Your task to perform on an android device: View the shopping cart on ebay. Search for logitech g933 on ebay, select the first entry, and add it to the cart. Image 0: 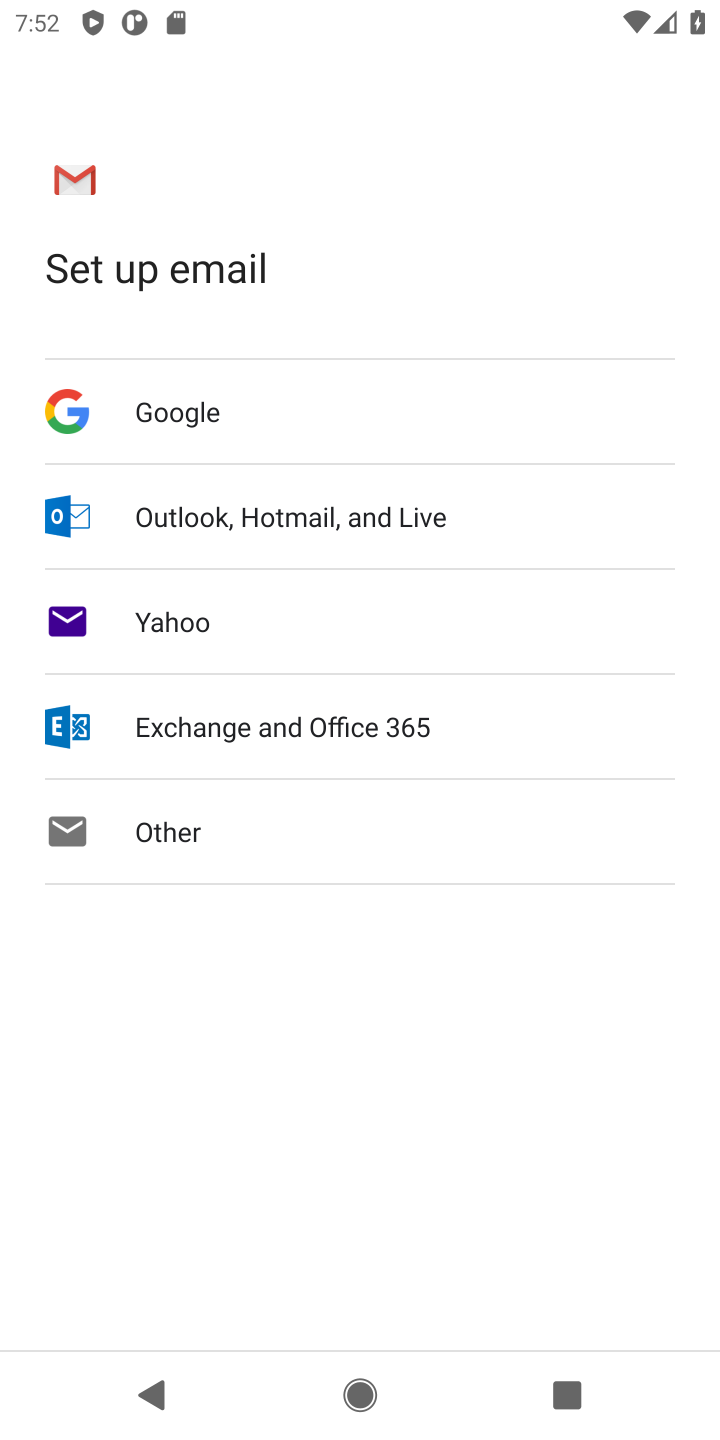
Step 0: press home button
Your task to perform on an android device: View the shopping cart on ebay. Search for logitech g933 on ebay, select the first entry, and add it to the cart. Image 1: 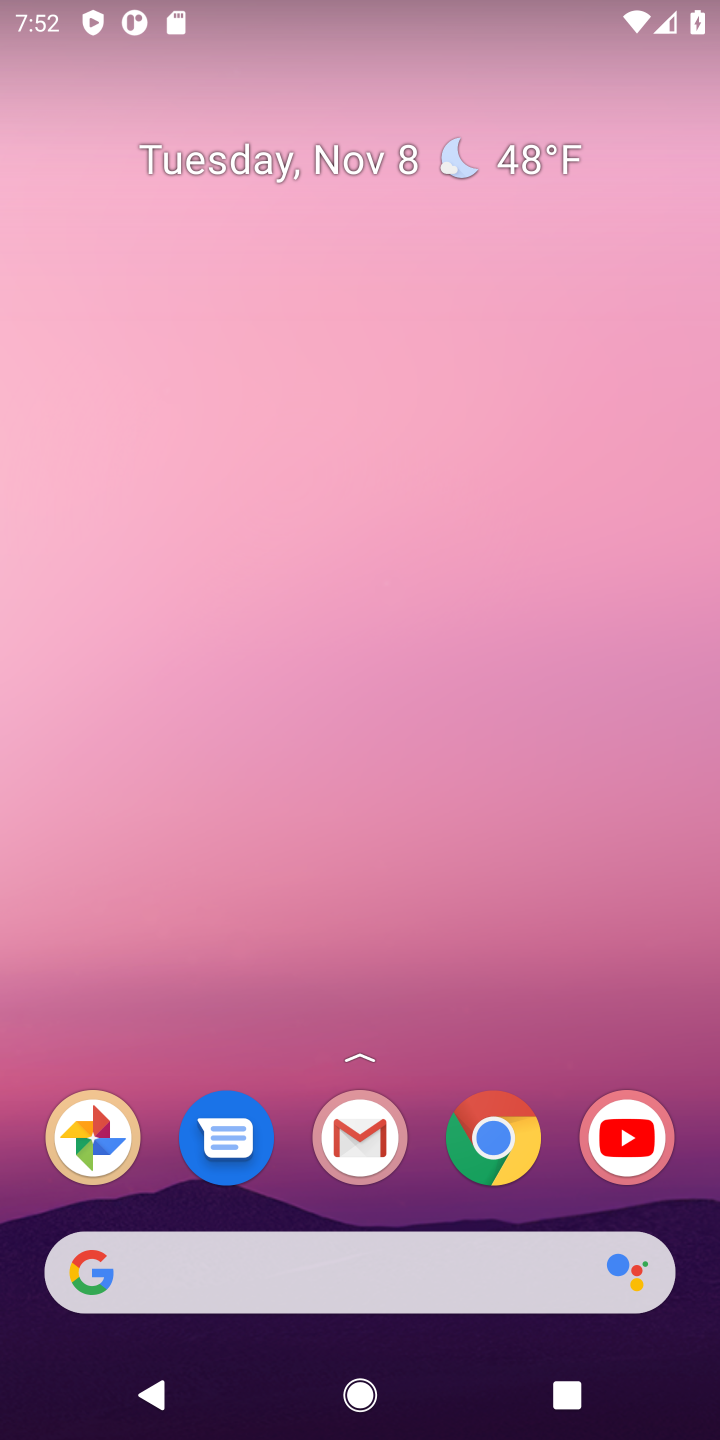
Step 1: click (503, 1151)
Your task to perform on an android device: View the shopping cart on ebay. Search for logitech g933 on ebay, select the first entry, and add it to the cart. Image 2: 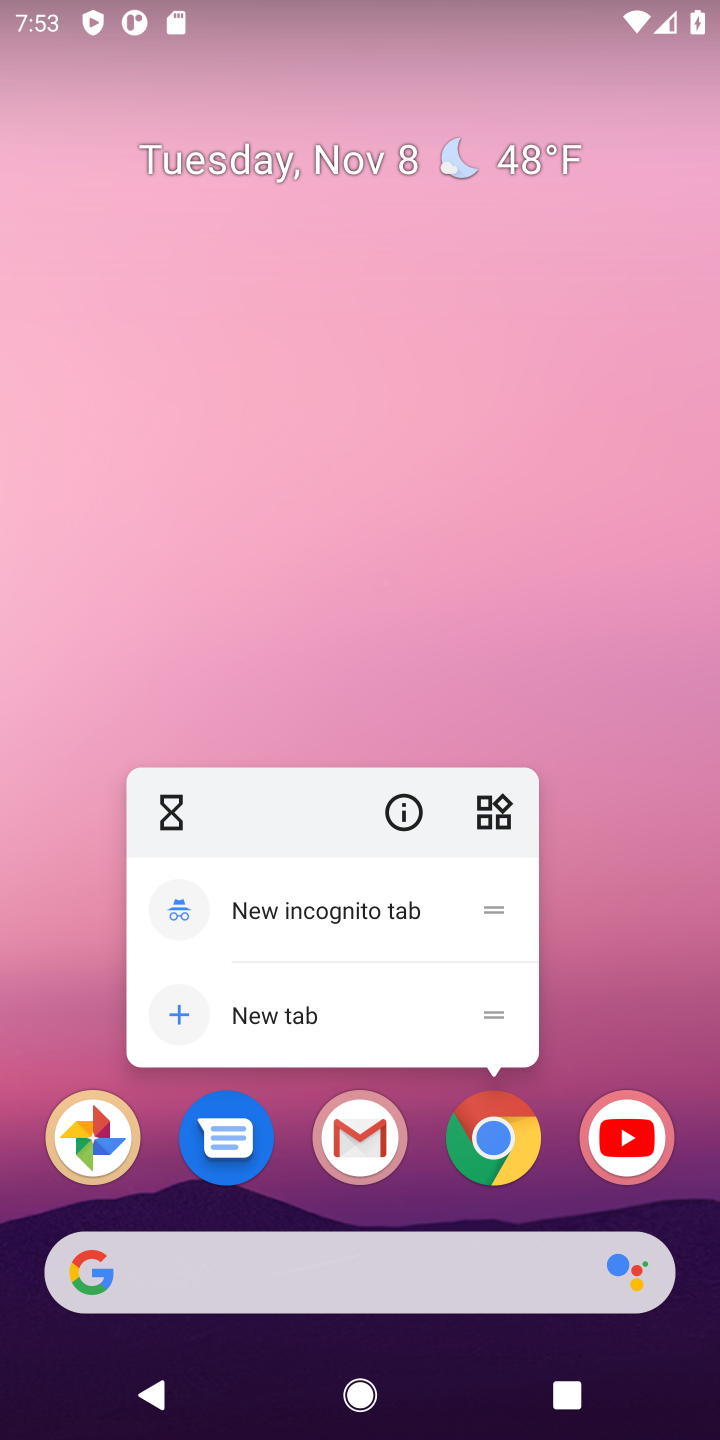
Step 2: click (503, 1134)
Your task to perform on an android device: View the shopping cart on ebay. Search for logitech g933 on ebay, select the first entry, and add it to the cart. Image 3: 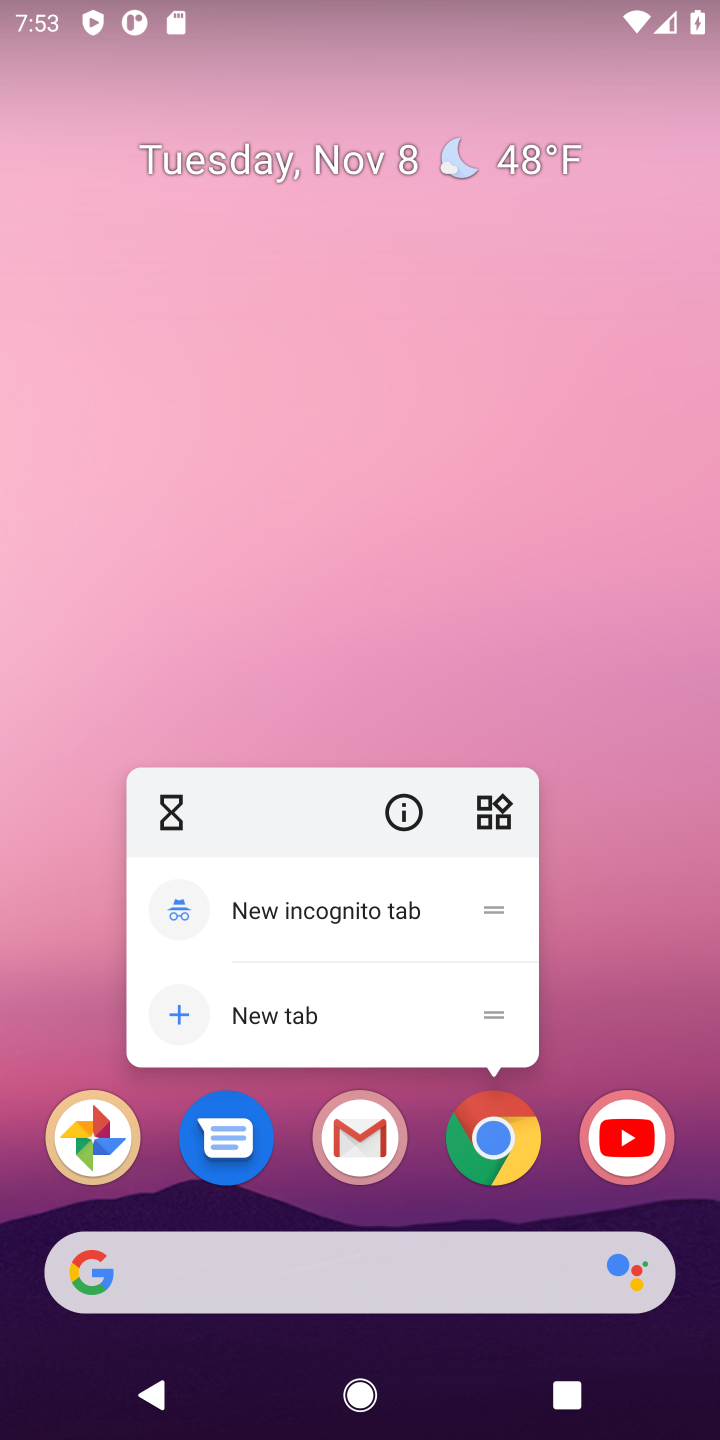
Step 3: click (503, 1142)
Your task to perform on an android device: View the shopping cart on ebay. Search for logitech g933 on ebay, select the first entry, and add it to the cart. Image 4: 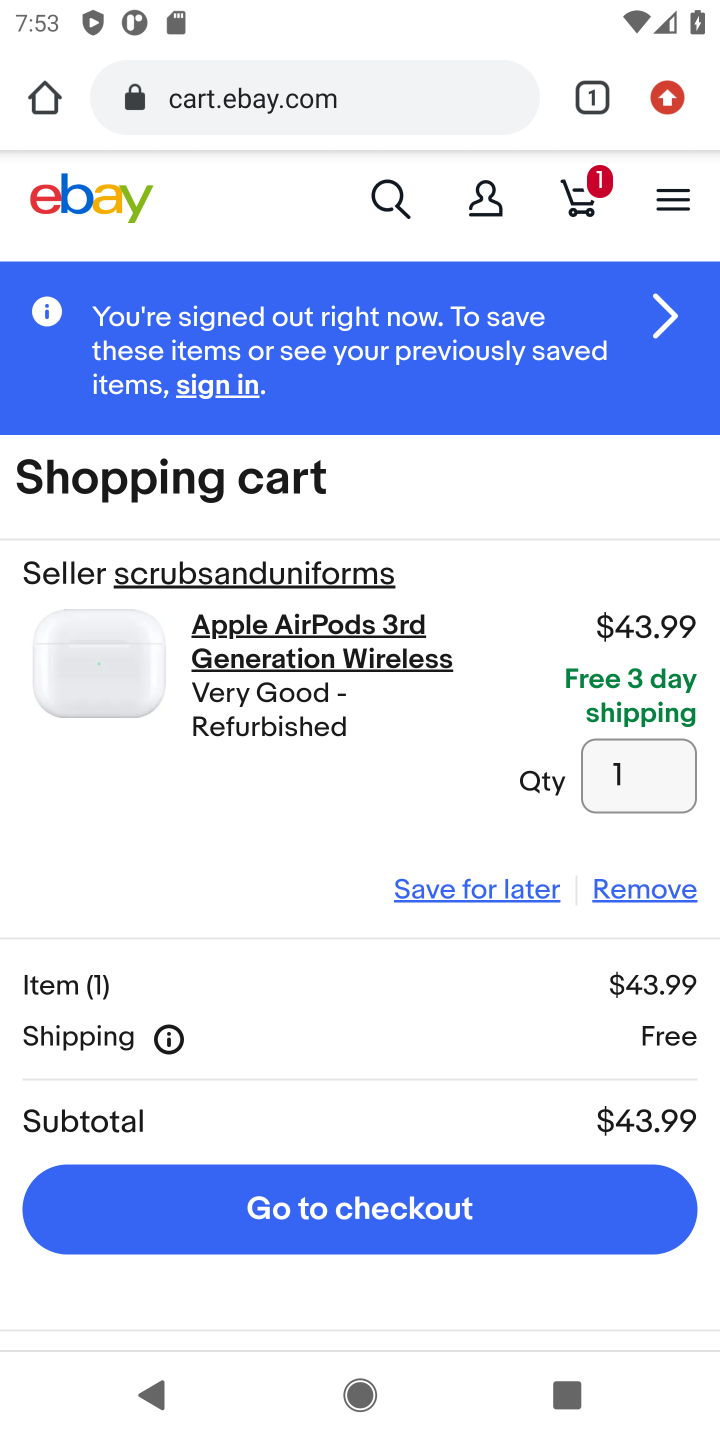
Step 4: click (635, 882)
Your task to perform on an android device: View the shopping cart on ebay. Search for logitech g933 on ebay, select the first entry, and add it to the cart. Image 5: 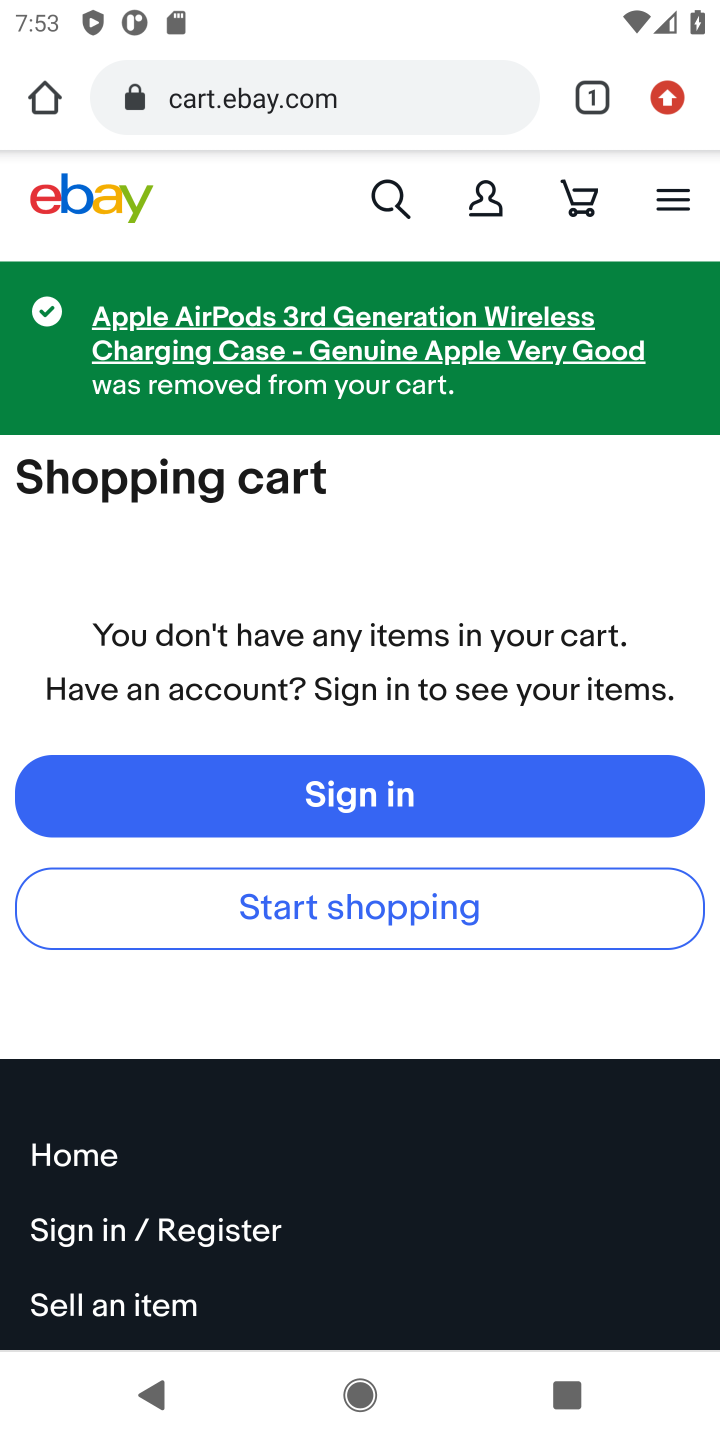
Step 5: click (388, 181)
Your task to perform on an android device: View the shopping cart on ebay. Search for logitech g933 on ebay, select the first entry, and add it to the cart. Image 6: 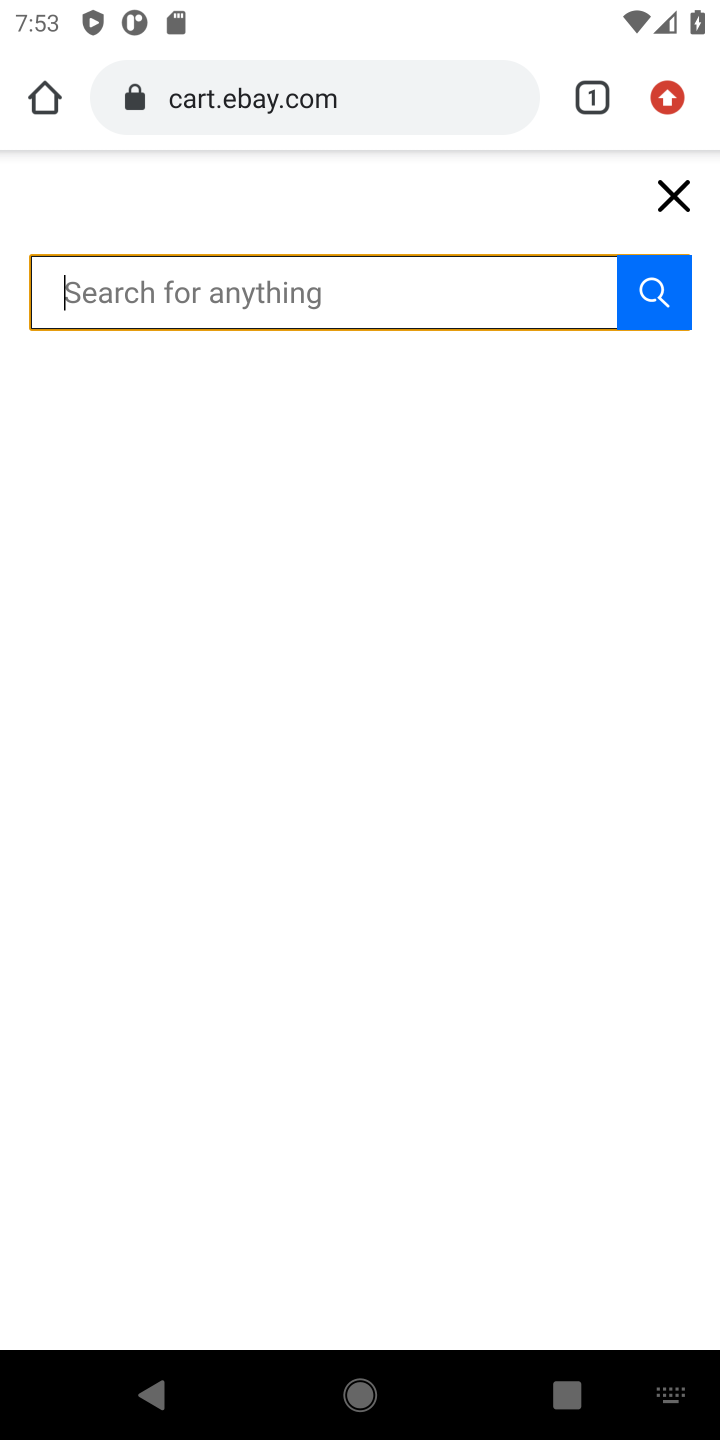
Step 6: click (350, 294)
Your task to perform on an android device: View the shopping cart on ebay. Search for logitech g933 on ebay, select the first entry, and add it to the cart. Image 7: 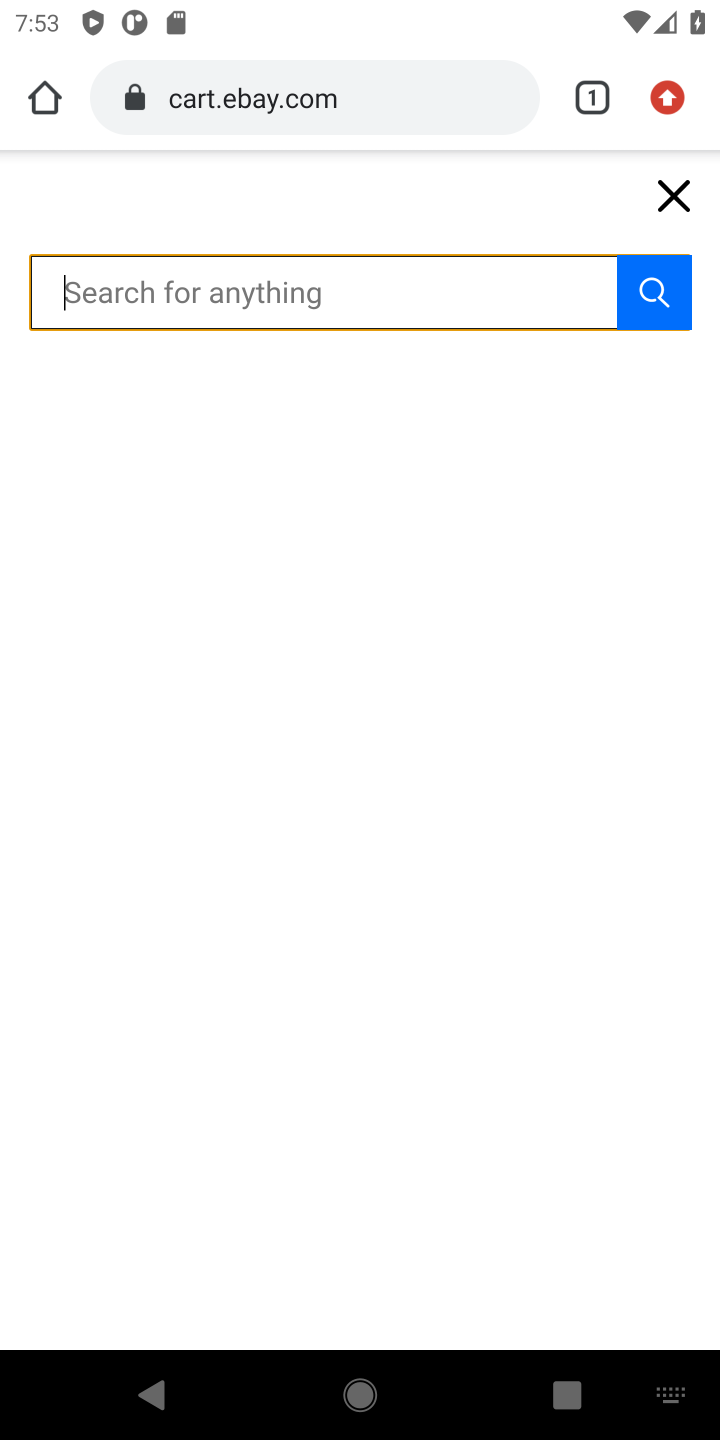
Step 7: type "logitech g933"
Your task to perform on an android device: View the shopping cart on ebay. Search for logitech g933 on ebay, select the first entry, and add it to the cart. Image 8: 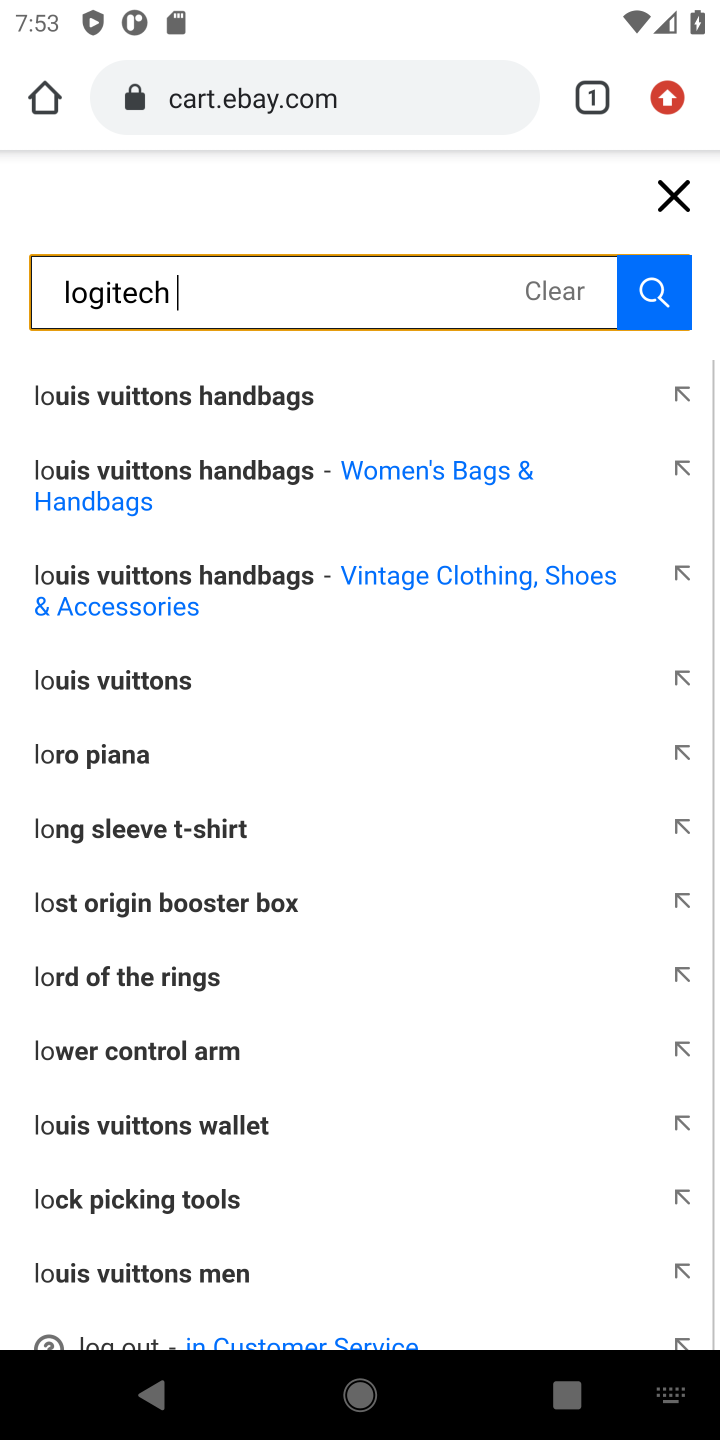
Step 8: press enter
Your task to perform on an android device: View the shopping cart on ebay. Search for logitech g933 on ebay, select the first entry, and add it to the cart. Image 9: 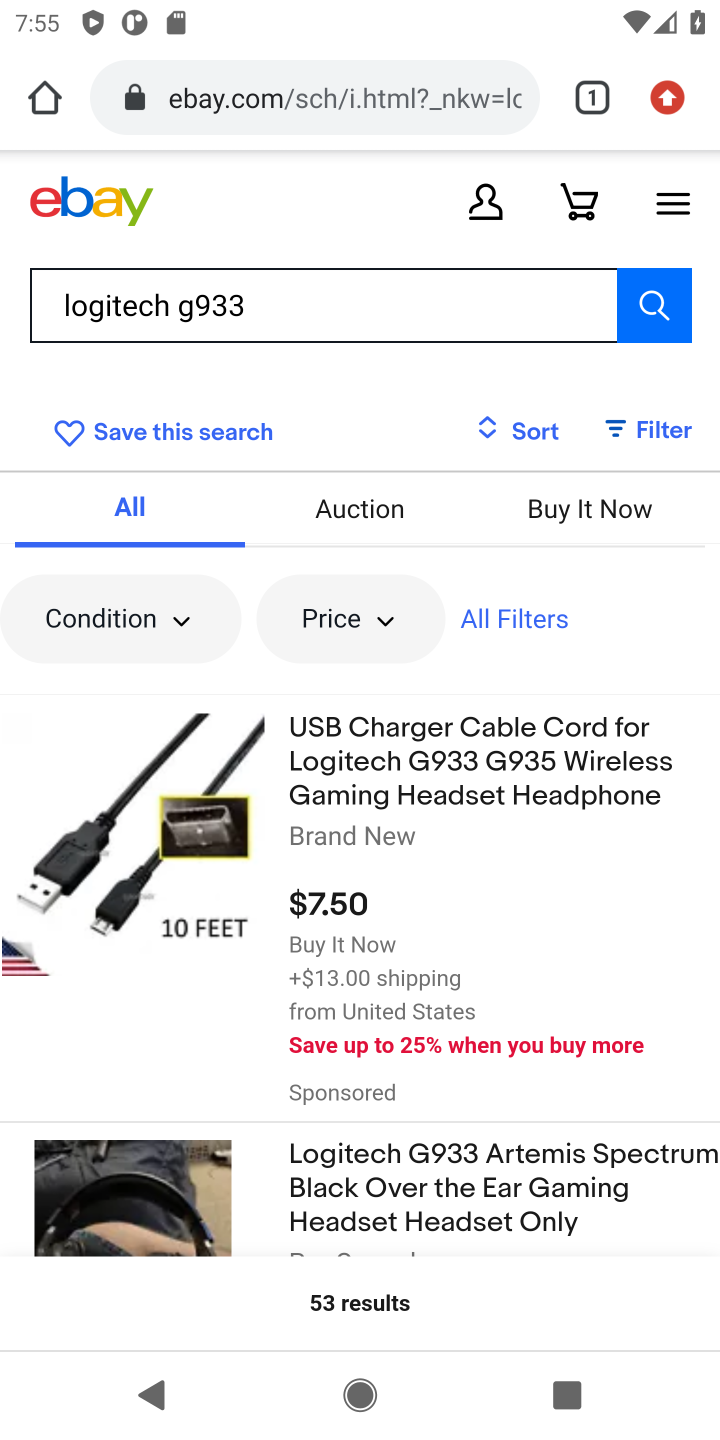
Step 9: task complete